Your task to perform on an android device: turn off notifications settings in the gmail app Image 0: 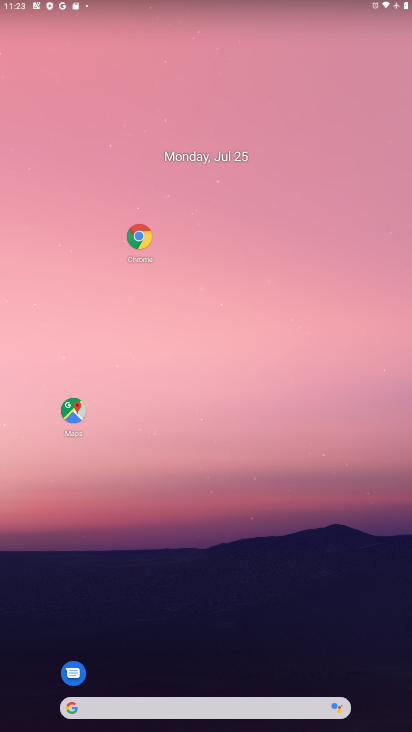
Step 0: drag from (207, 679) to (237, 419)
Your task to perform on an android device: turn off notifications settings in the gmail app Image 1: 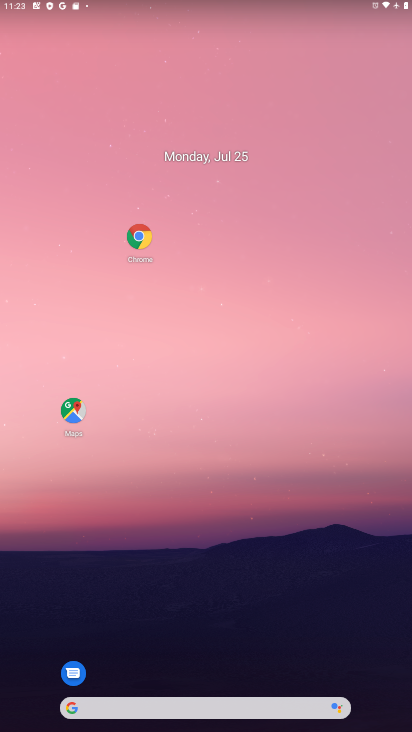
Step 1: drag from (238, 648) to (293, 209)
Your task to perform on an android device: turn off notifications settings in the gmail app Image 2: 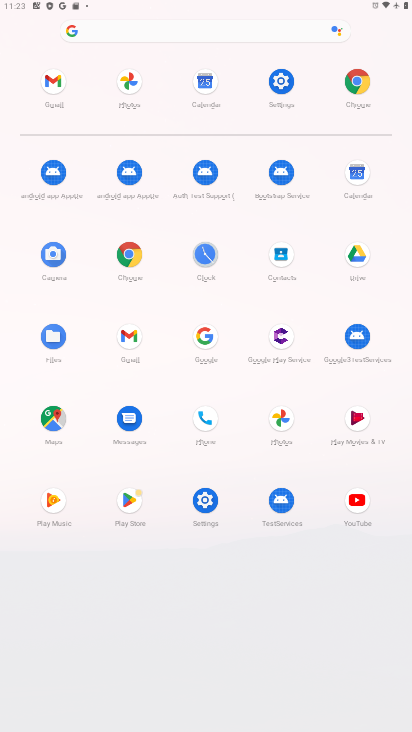
Step 2: click (50, 80)
Your task to perform on an android device: turn off notifications settings in the gmail app Image 3: 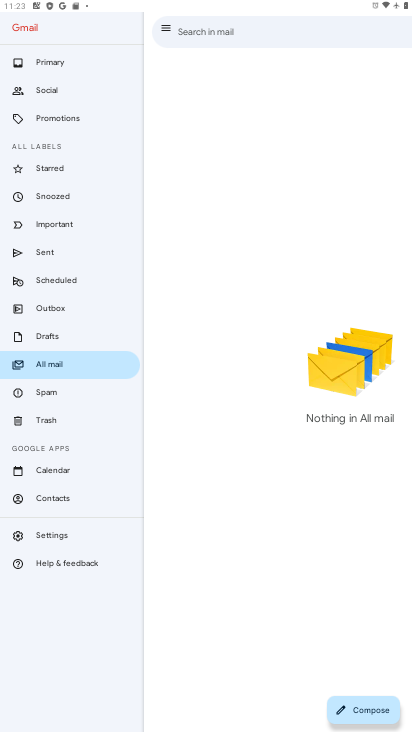
Step 3: click (75, 534)
Your task to perform on an android device: turn off notifications settings in the gmail app Image 4: 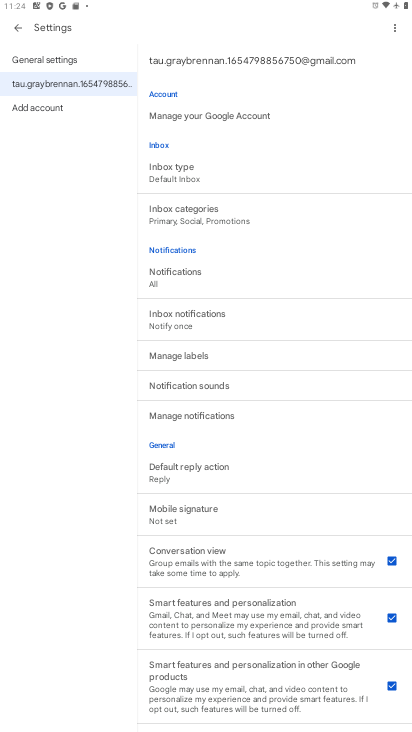
Step 4: task complete